Your task to perform on an android device: search for starred emails in the gmail app Image 0: 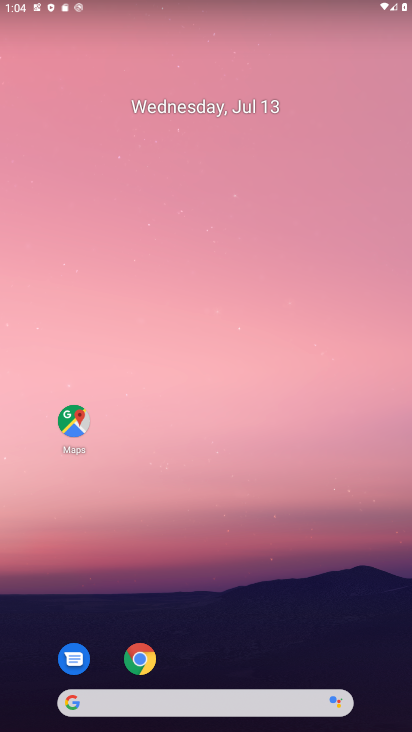
Step 0: drag from (208, 663) to (215, 199)
Your task to perform on an android device: search for starred emails in the gmail app Image 1: 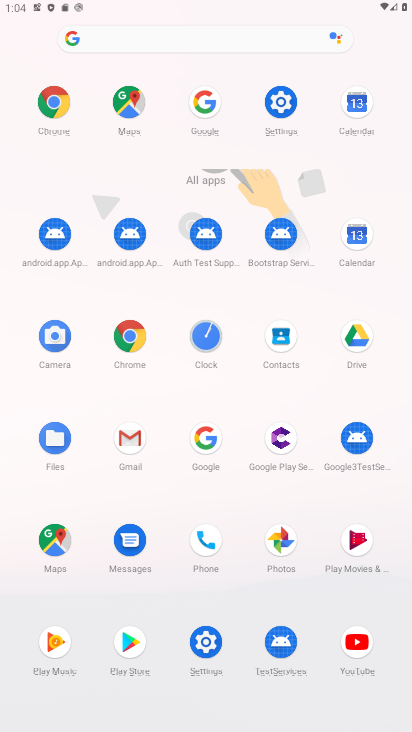
Step 1: click (128, 437)
Your task to perform on an android device: search for starred emails in the gmail app Image 2: 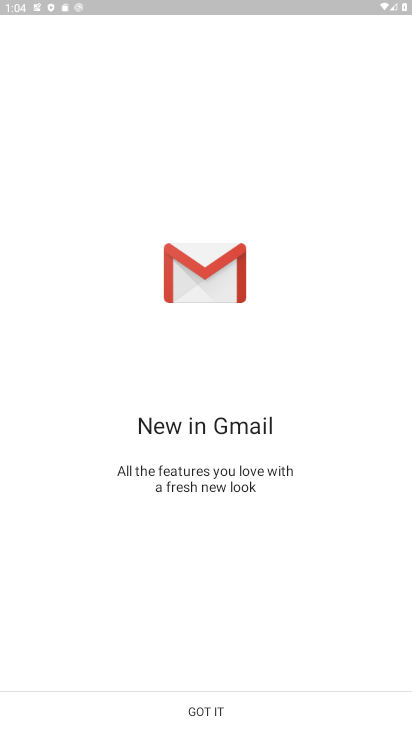
Step 2: click (200, 718)
Your task to perform on an android device: search for starred emails in the gmail app Image 3: 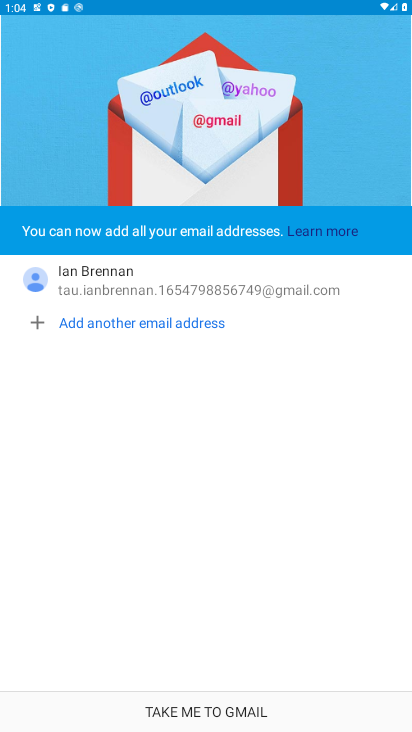
Step 3: click (203, 710)
Your task to perform on an android device: search for starred emails in the gmail app Image 4: 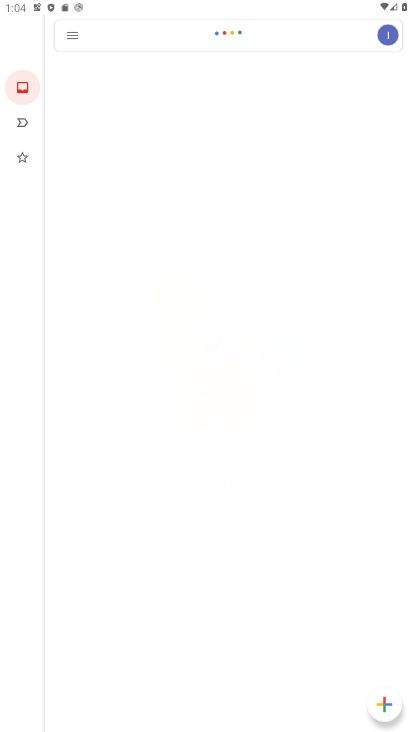
Step 4: click (67, 33)
Your task to perform on an android device: search for starred emails in the gmail app Image 5: 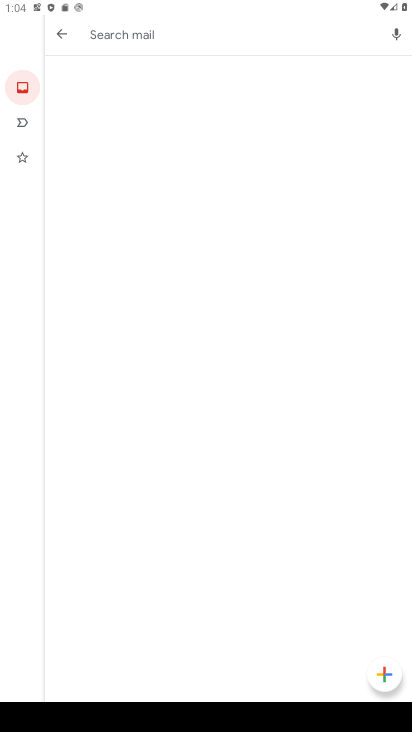
Step 5: press back button
Your task to perform on an android device: search for starred emails in the gmail app Image 6: 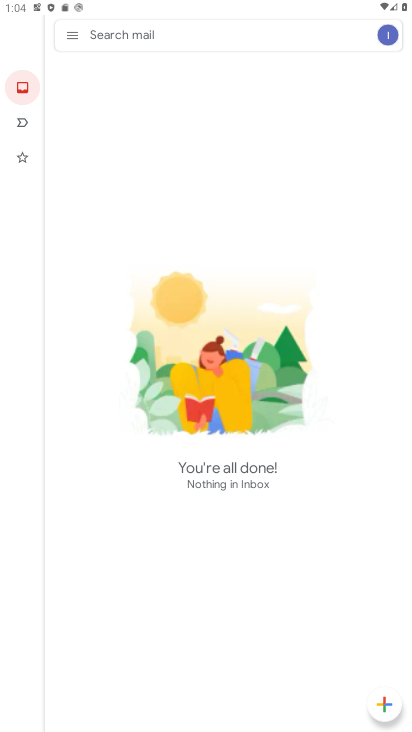
Step 6: click (65, 31)
Your task to perform on an android device: search for starred emails in the gmail app Image 7: 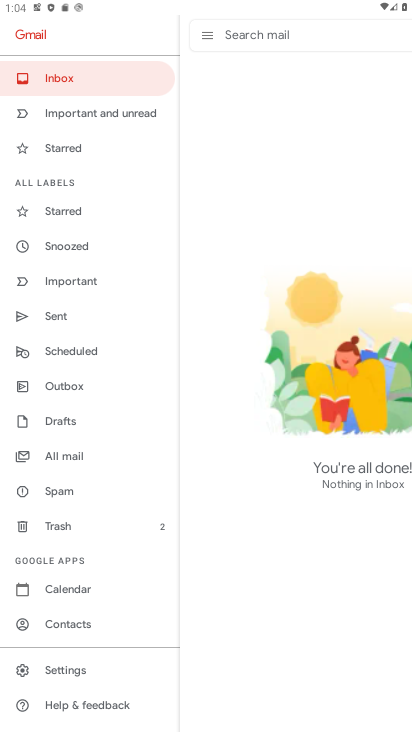
Step 7: click (65, 145)
Your task to perform on an android device: search for starred emails in the gmail app Image 8: 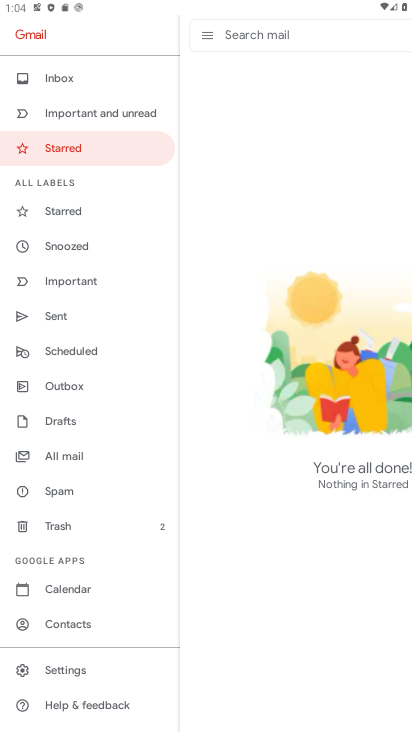
Step 8: task complete